Your task to perform on an android device: turn off sleep mode Image 0: 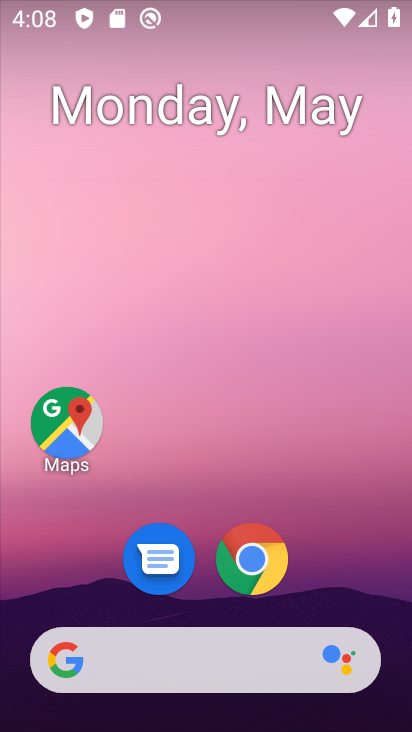
Step 0: drag from (273, 563) to (305, 0)
Your task to perform on an android device: turn off sleep mode Image 1: 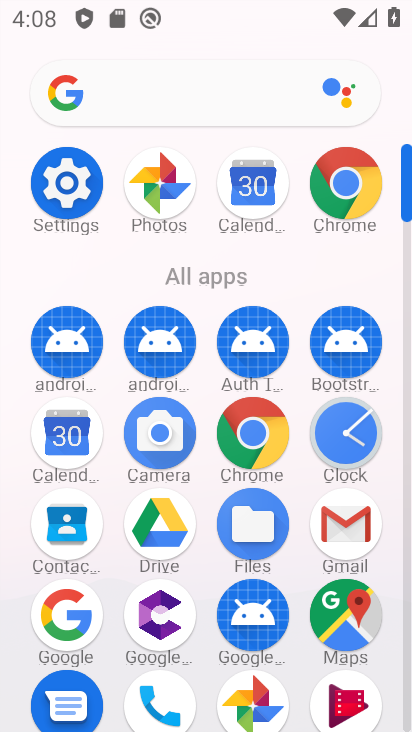
Step 1: click (61, 169)
Your task to perform on an android device: turn off sleep mode Image 2: 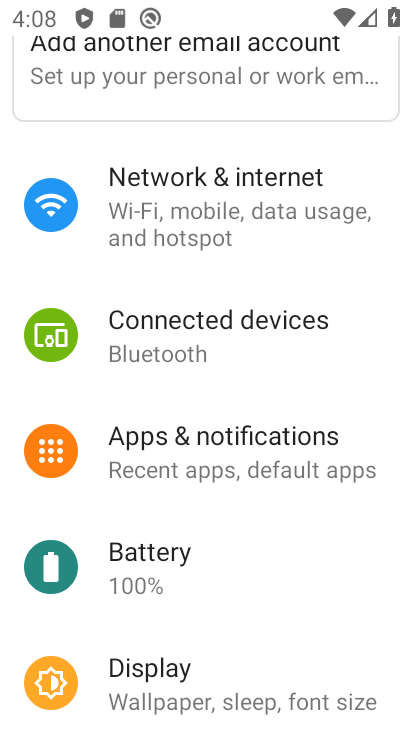
Step 2: click (234, 689)
Your task to perform on an android device: turn off sleep mode Image 3: 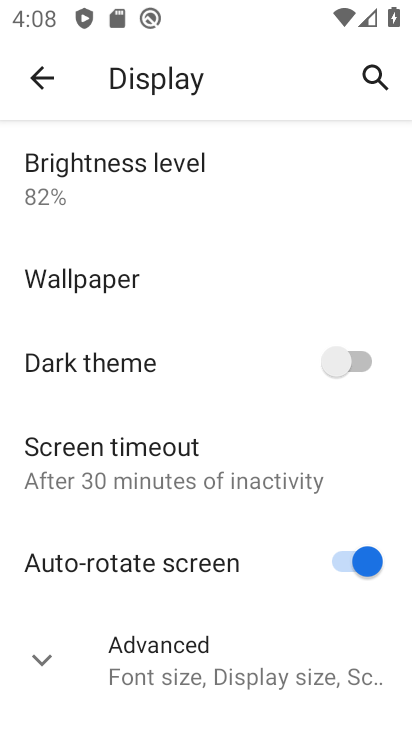
Step 3: task complete